Your task to perform on an android device: turn off javascript in the chrome app Image 0: 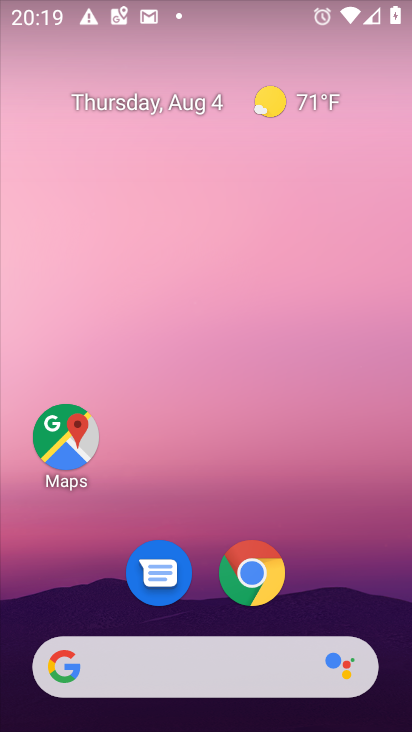
Step 0: click (251, 587)
Your task to perform on an android device: turn off javascript in the chrome app Image 1: 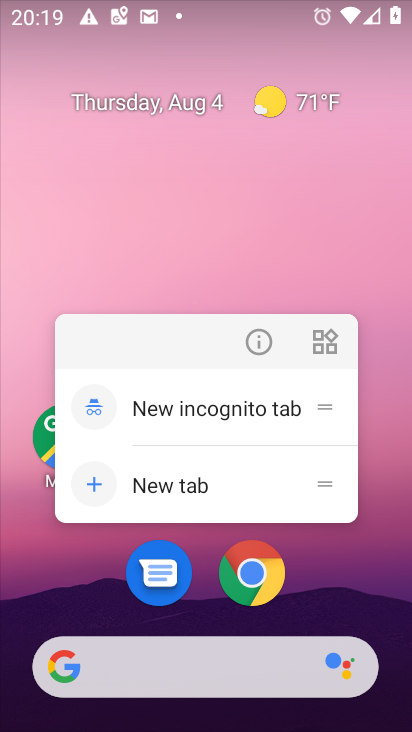
Step 1: click (255, 561)
Your task to perform on an android device: turn off javascript in the chrome app Image 2: 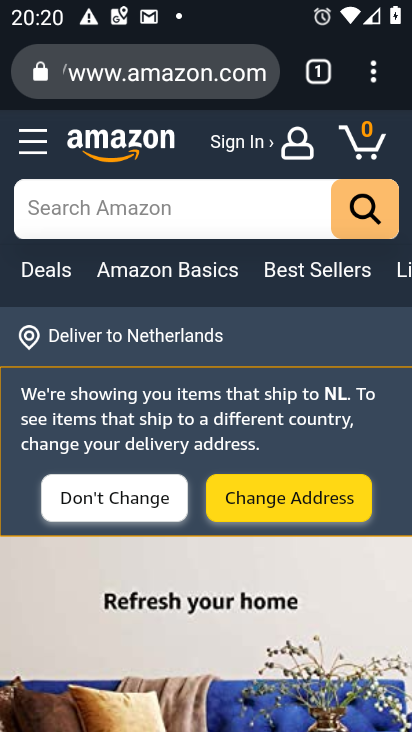
Step 2: drag from (377, 69) to (153, 564)
Your task to perform on an android device: turn off javascript in the chrome app Image 3: 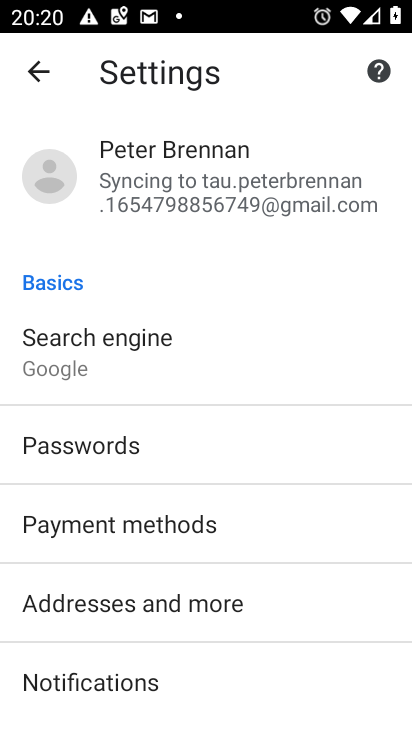
Step 3: drag from (259, 585) to (44, 143)
Your task to perform on an android device: turn off javascript in the chrome app Image 4: 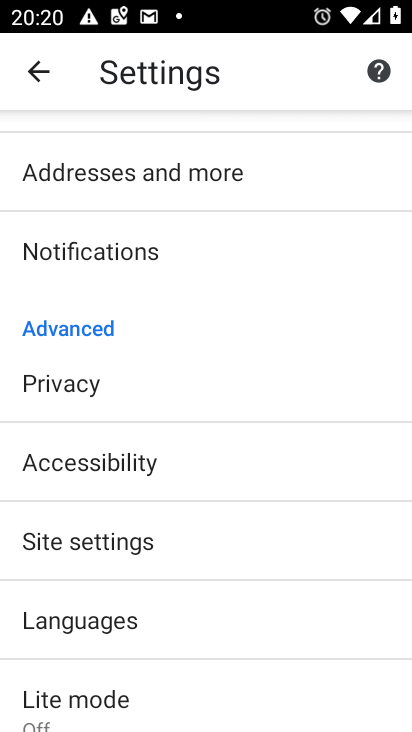
Step 4: click (93, 552)
Your task to perform on an android device: turn off javascript in the chrome app Image 5: 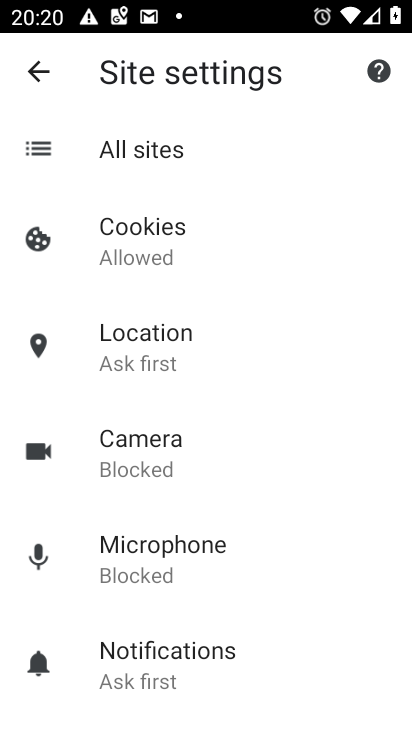
Step 5: drag from (184, 580) to (193, 143)
Your task to perform on an android device: turn off javascript in the chrome app Image 6: 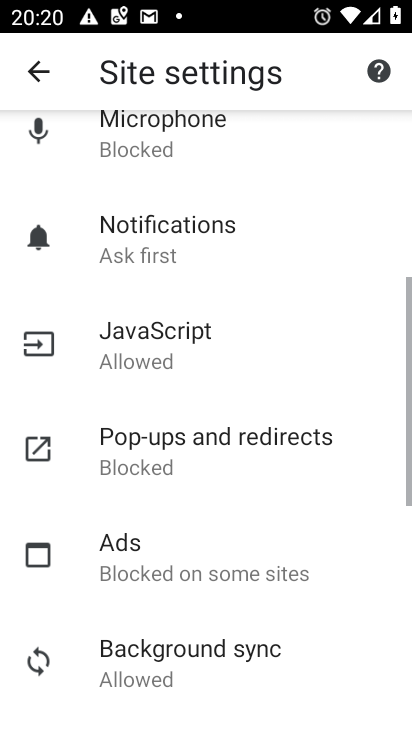
Step 6: click (140, 336)
Your task to perform on an android device: turn off javascript in the chrome app Image 7: 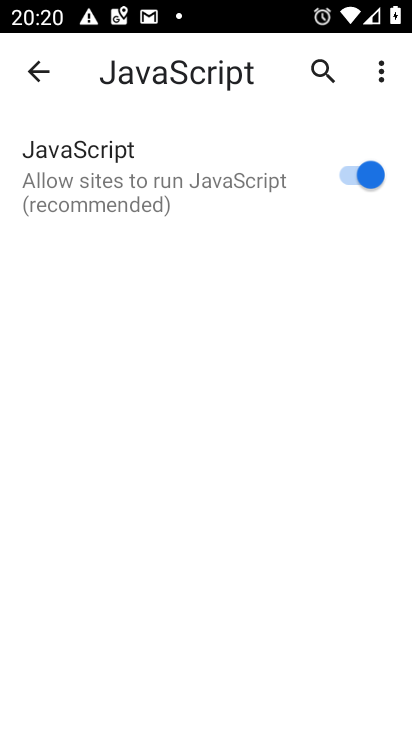
Step 7: click (351, 180)
Your task to perform on an android device: turn off javascript in the chrome app Image 8: 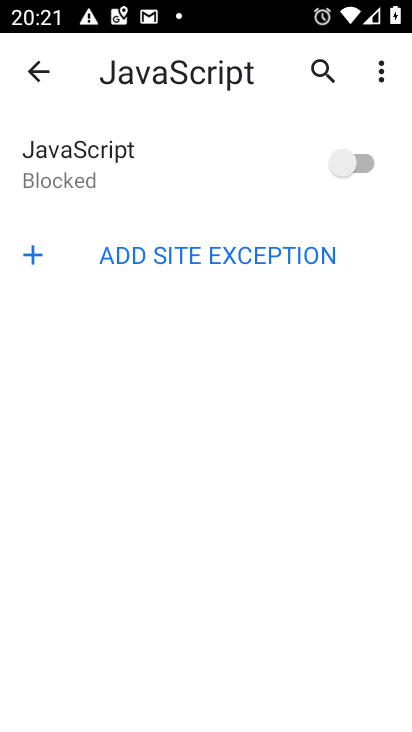
Step 8: task complete